Your task to perform on an android device: turn on airplane mode Image 0: 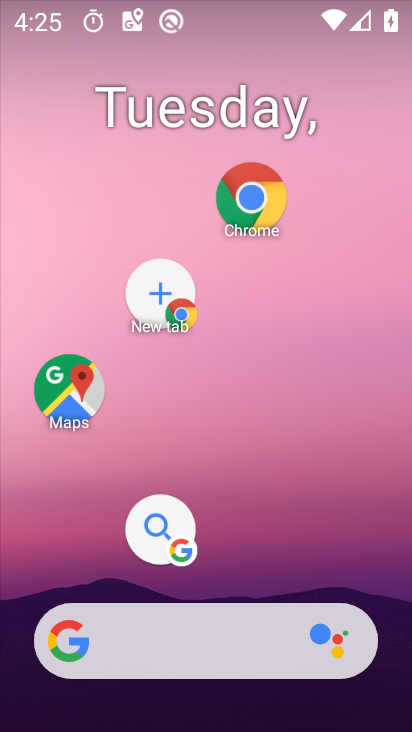
Step 0: drag from (235, 579) to (239, 145)
Your task to perform on an android device: turn on airplane mode Image 1: 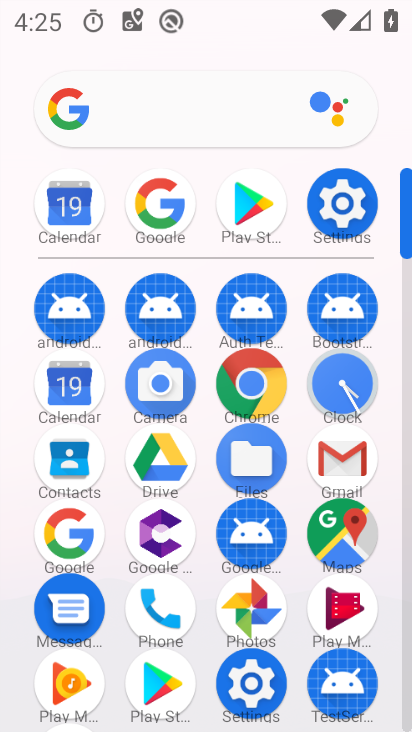
Step 1: click (367, 207)
Your task to perform on an android device: turn on airplane mode Image 2: 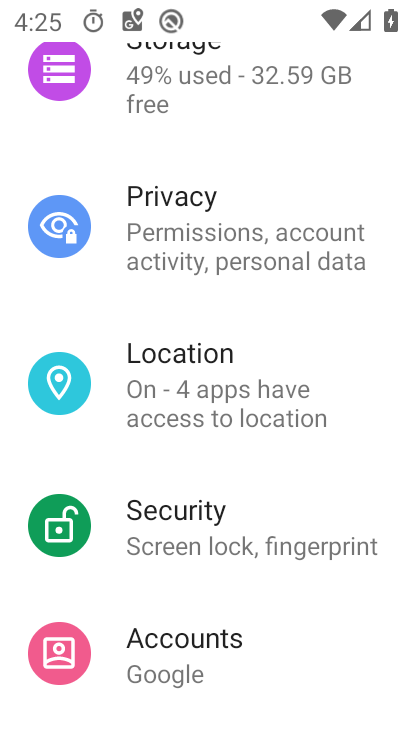
Step 2: drag from (237, 162) to (190, 536)
Your task to perform on an android device: turn on airplane mode Image 3: 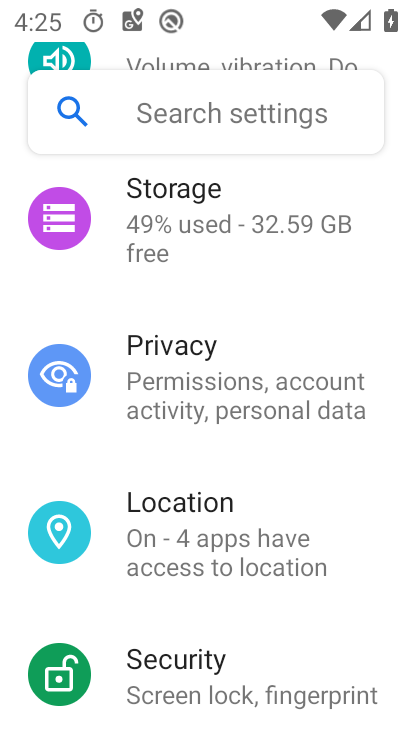
Step 3: drag from (254, 209) to (183, 610)
Your task to perform on an android device: turn on airplane mode Image 4: 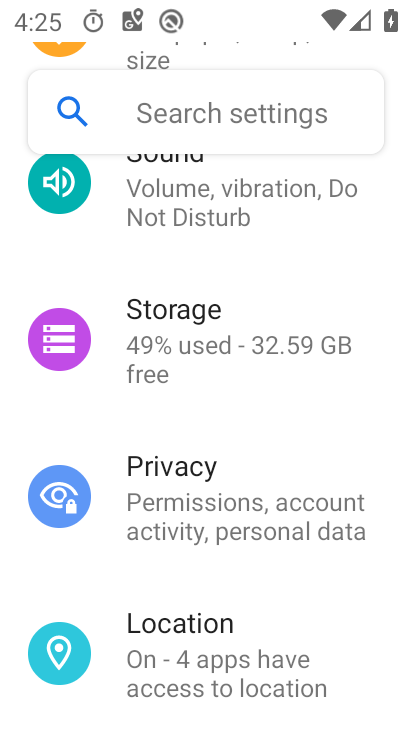
Step 4: drag from (265, 236) to (186, 605)
Your task to perform on an android device: turn on airplane mode Image 5: 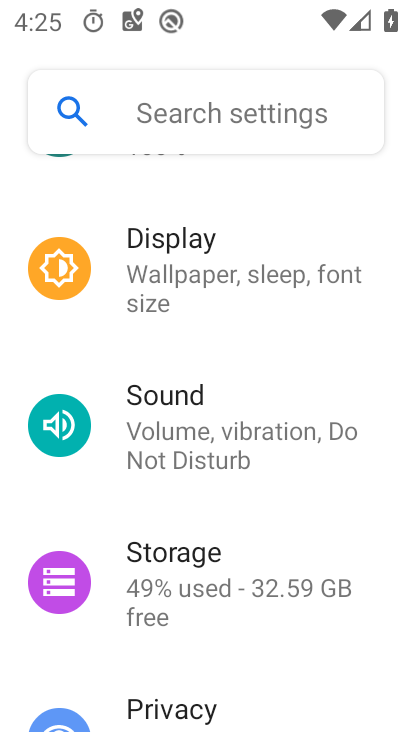
Step 5: drag from (258, 242) to (268, 620)
Your task to perform on an android device: turn on airplane mode Image 6: 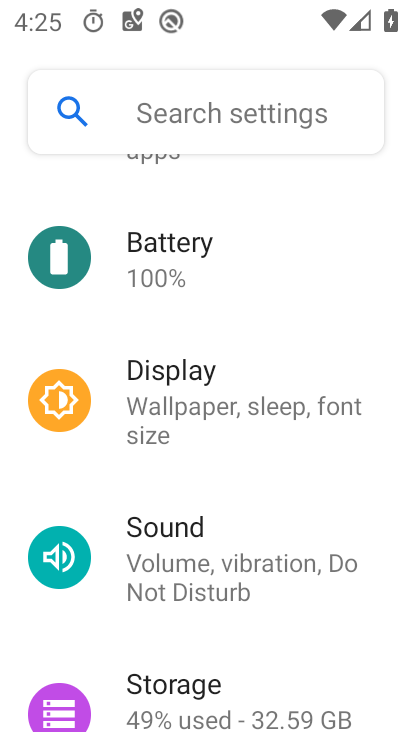
Step 6: drag from (245, 299) to (198, 634)
Your task to perform on an android device: turn on airplane mode Image 7: 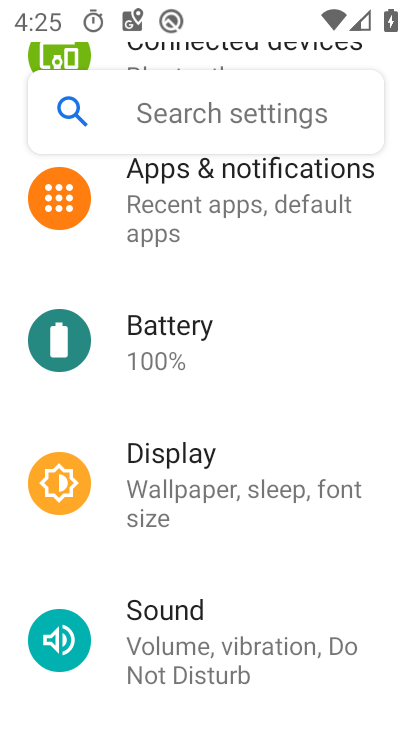
Step 7: drag from (212, 173) to (171, 583)
Your task to perform on an android device: turn on airplane mode Image 8: 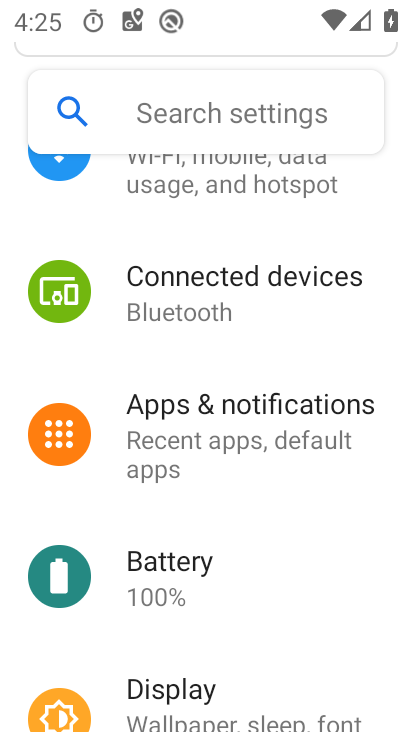
Step 8: drag from (224, 240) to (216, 617)
Your task to perform on an android device: turn on airplane mode Image 9: 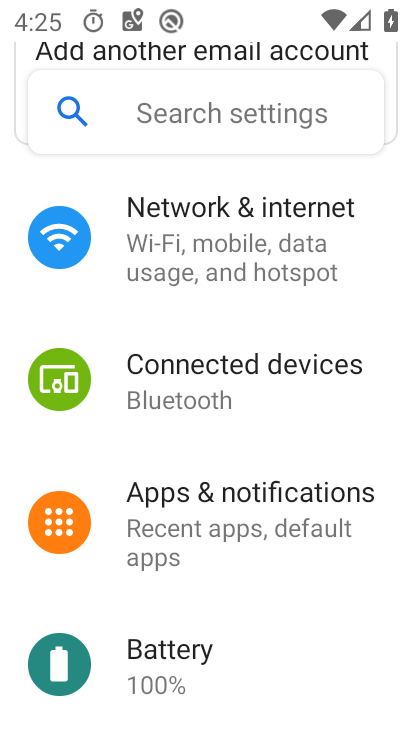
Step 9: click (209, 259)
Your task to perform on an android device: turn on airplane mode Image 10: 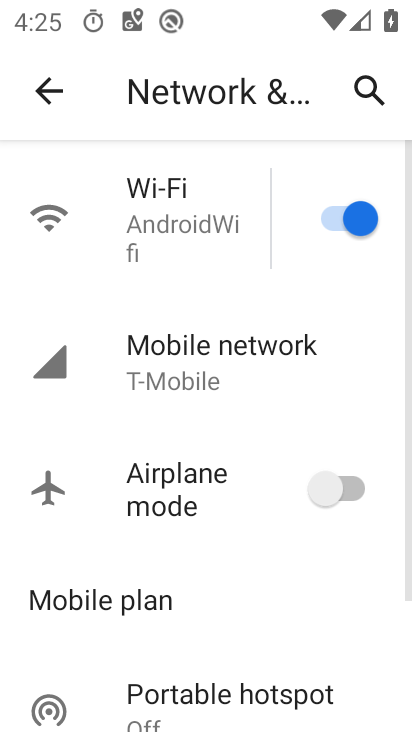
Step 10: click (352, 488)
Your task to perform on an android device: turn on airplane mode Image 11: 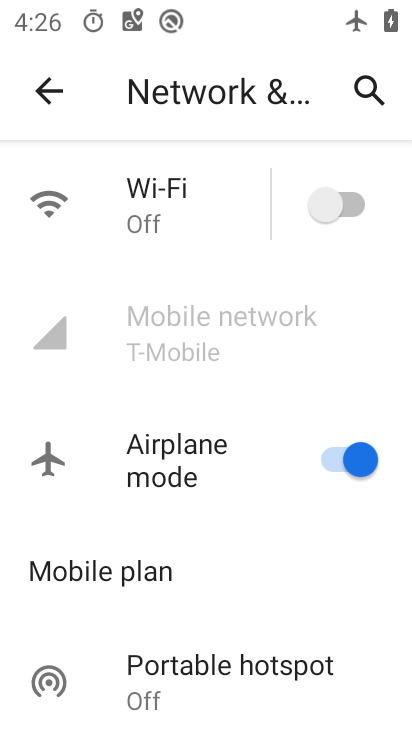
Step 11: task complete